Your task to perform on an android device: turn on bluetooth scan Image 0: 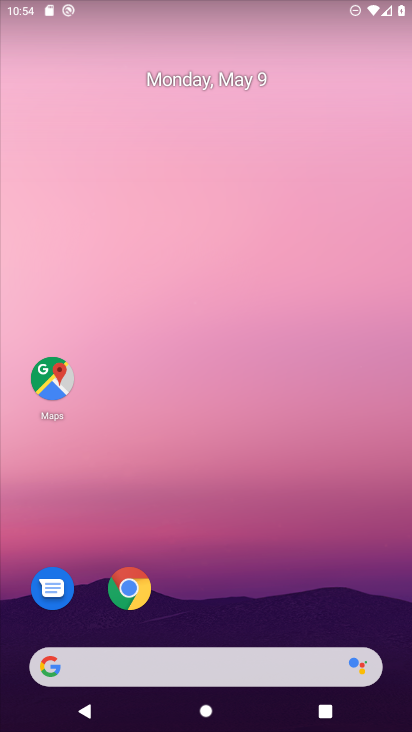
Step 0: drag from (252, 586) to (252, 29)
Your task to perform on an android device: turn on bluetooth scan Image 1: 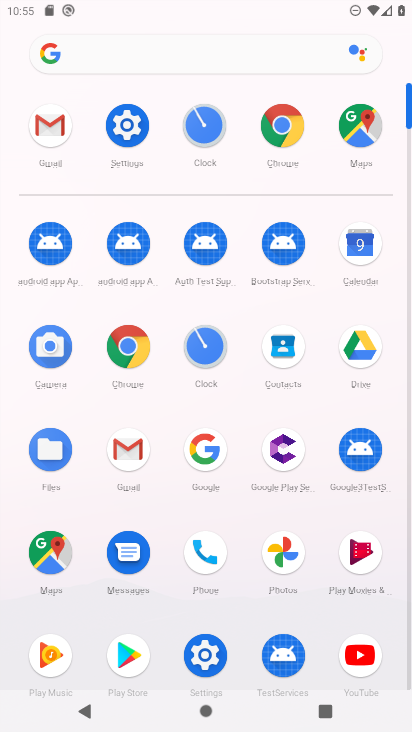
Step 1: click (136, 130)
Your task to perform on an android device: turn on bluetooth scan Image 2: 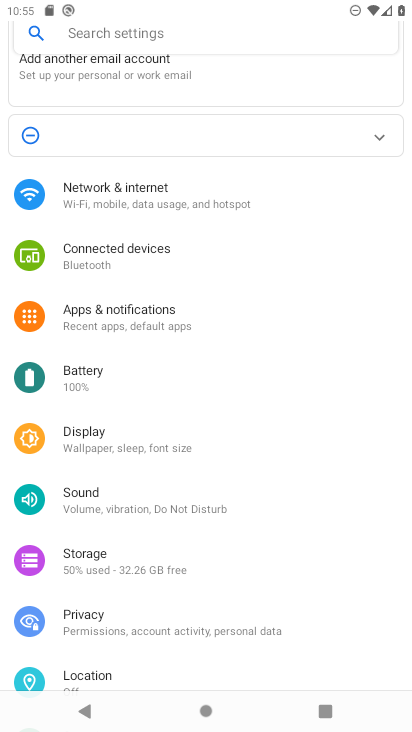
Step 2: click (147, 684)
Your task to perform on an android device: turn on bluetooth scan Image 3: 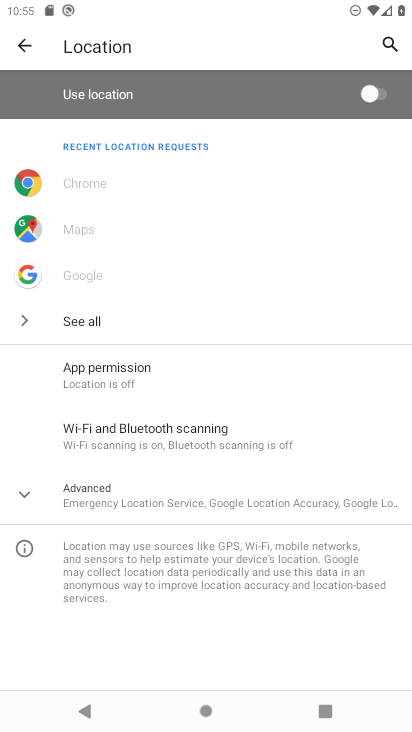
Step 3: click (185, 423)
Your task to perform on an android device: turn on bluetooth scan Image 4: 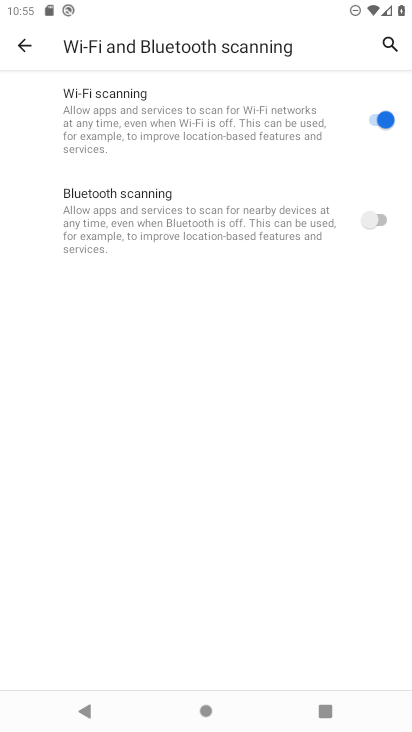
Step 4: click (359, 229)
Your task to perform on an android device: turn on bluetooth scan Image 5: 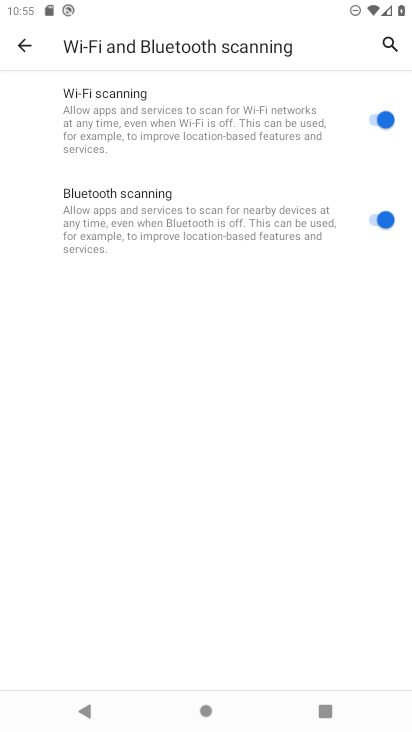
Step 5: task complete